Your task to perform on an android device: star an email in the gmail app Image 0: 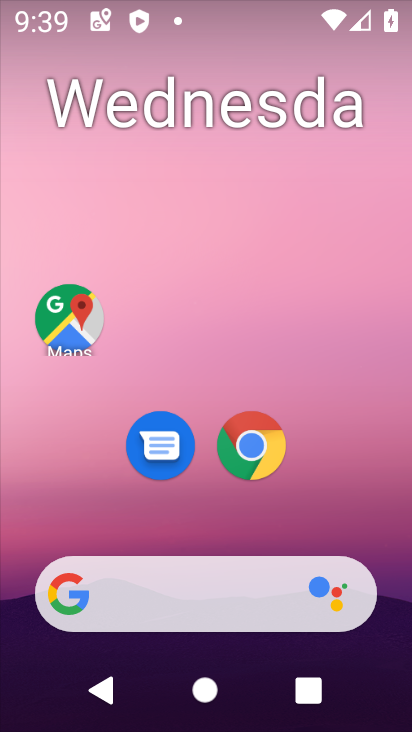
Step 0: drag from (191, 547) to (333, 23)
Your task to perform on an android device: star an email in the gmail app Image 1: 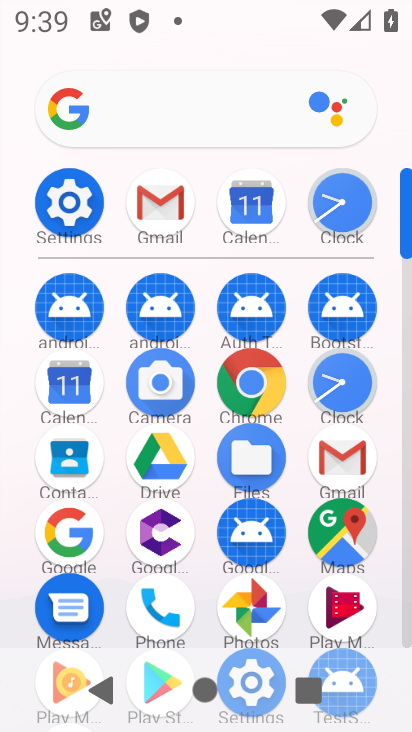
Step 1: click (171, 201)
Your task to perform on an android device: star an email in the gmail app Image 2: 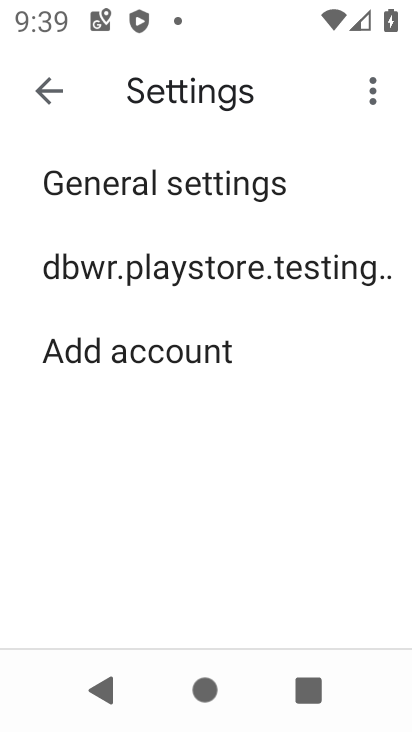
Step 2: click (38, 90)
Your task to perform on an android device: star an email in the gmail app Image 3: 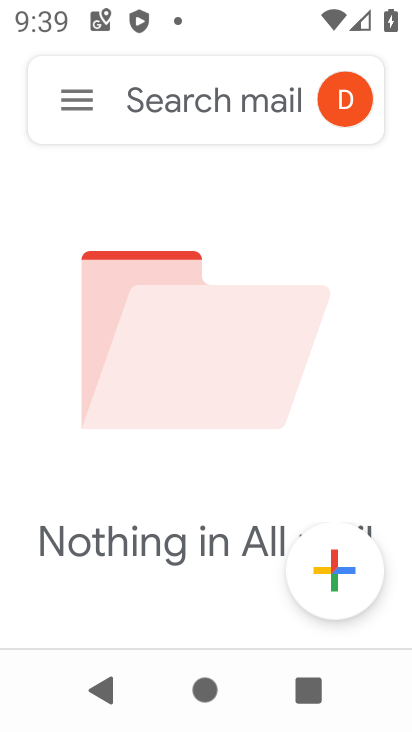
Step 3: click (68, 100)
Your task to perform on an android device: star an email in the gmail app Image 4: 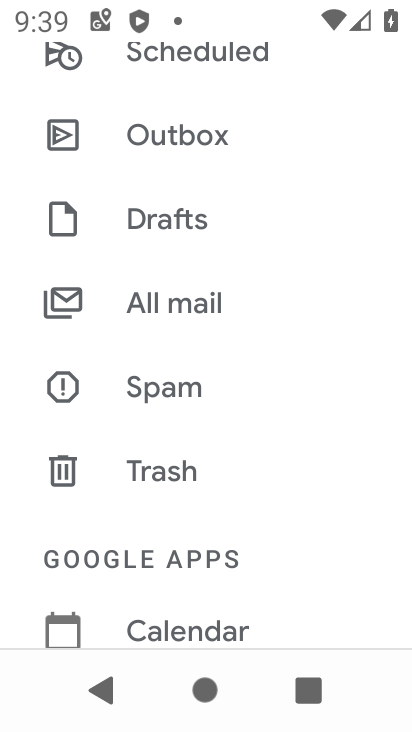
Step 4: click (132, 299)
Your task to perform on an android device: star an email in the gmail app Image 5: 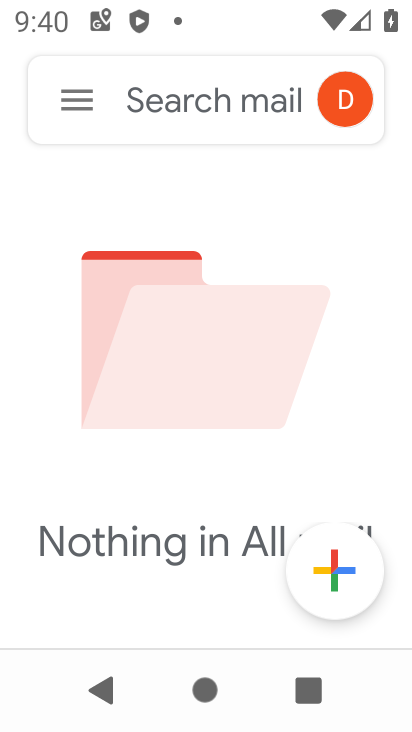
Step 5: task complete